Your task to perform on an android device: Search for sushi restaurants on Maps Image 0: 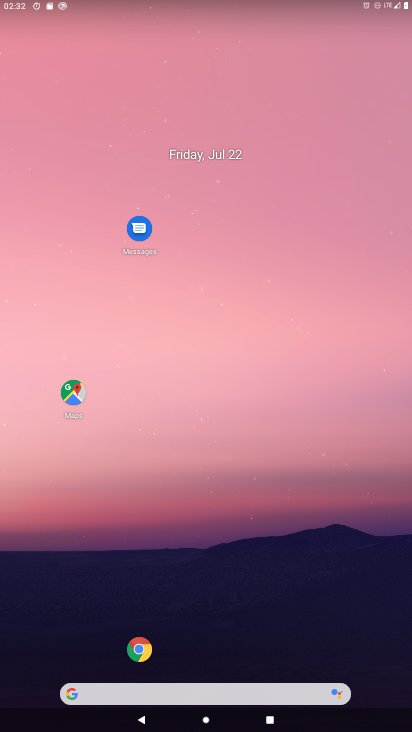
Step 0: click (82, 391)
Your task to perform on an android device: Search for sushi restaurants on Maps Image 1: 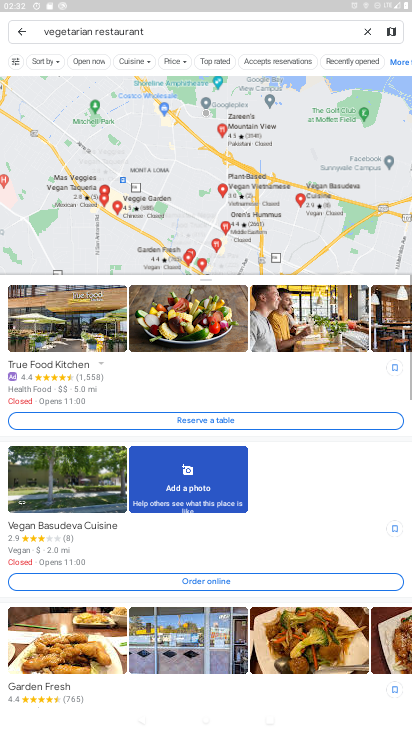
Step 1: click (368, 34)
Your task to perform on an android device: Search for sushi restaurants on Maps Image 2: 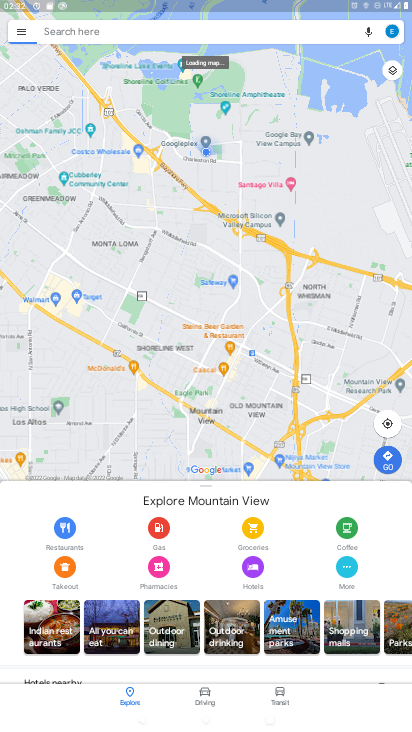
Step 2: click (55, 30)
Your task to perform on an android device: Search for sushi restaurants on Maps Image 3: 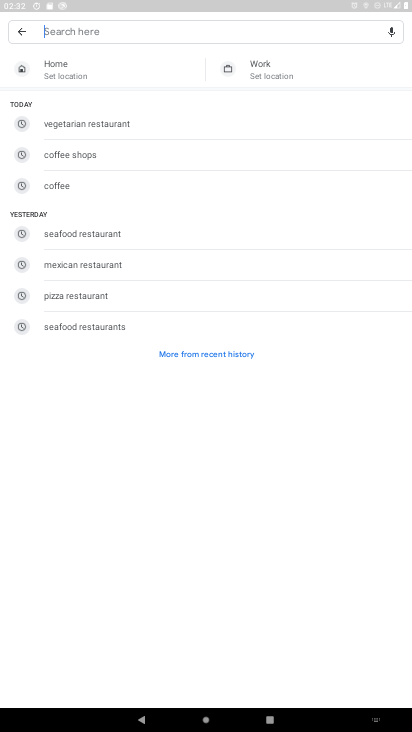
Step 3: type "sushi restaurants"
Your task to perform on an android device: Search for sushi restaurants on Maps Image 4: 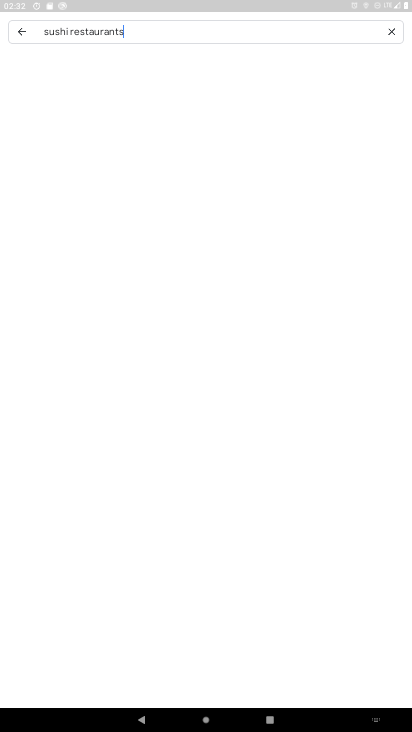
Step 4: type ""
Your task to perform on an android device: Search for sushi restaurants on Maps Image 5: 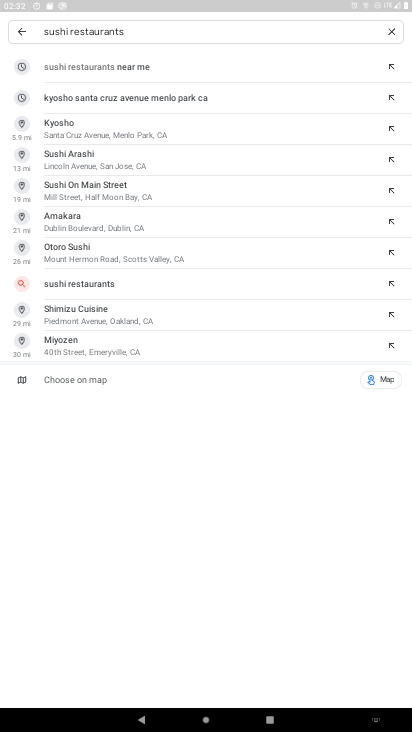
Step 5: type ""
Your task to perform on an android device: Search for sushi restaurants on Maps Image 6: 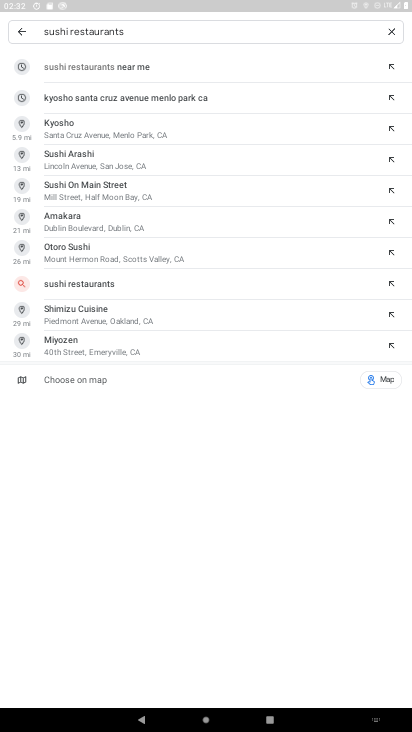
Step 6: type ""
Your task to perform on an android device: Search for sushi restaurants on Maps Image 7: 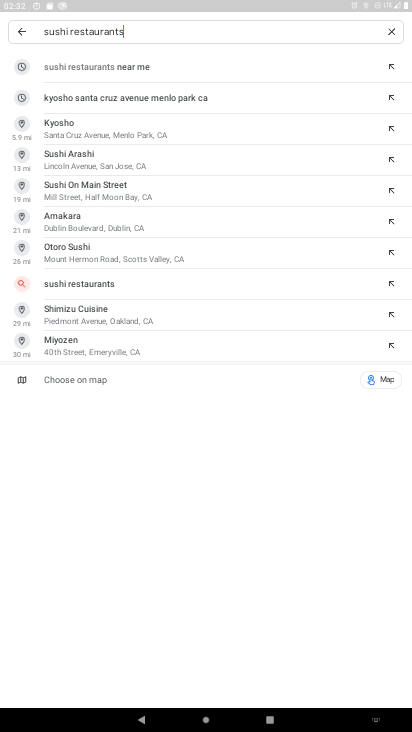
Step 7: type ""
Your task to perform on an android device: Search for sushi restaurants on Maps Image 8: 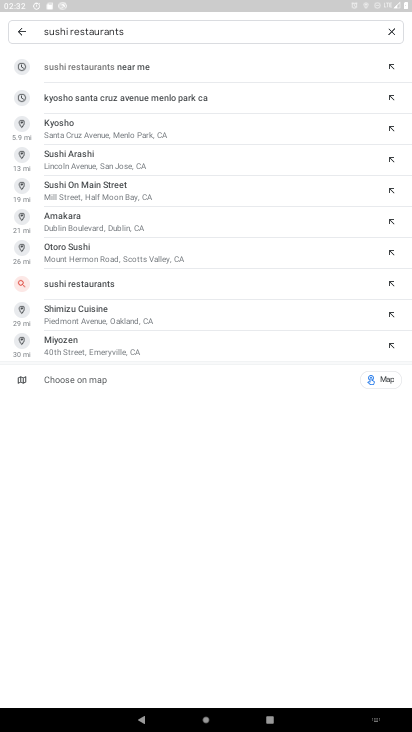
Step 8: type ""
Your task to perform on an android device: Search for sushi restaurants on Maps Image 9: 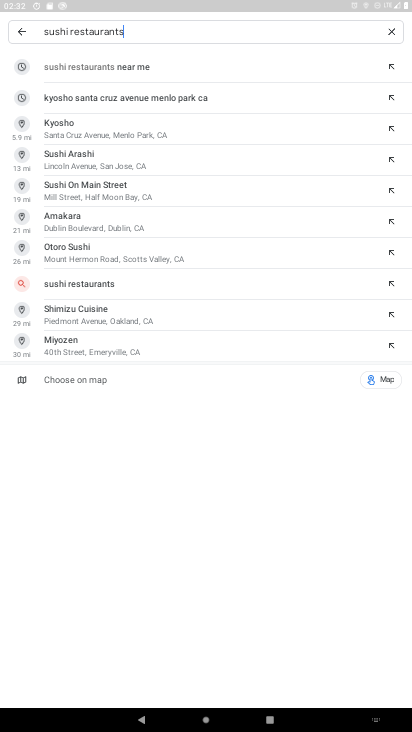
Step 9: task complete